Your task to perform on an android device: turn off notifications in google photos Image 0: 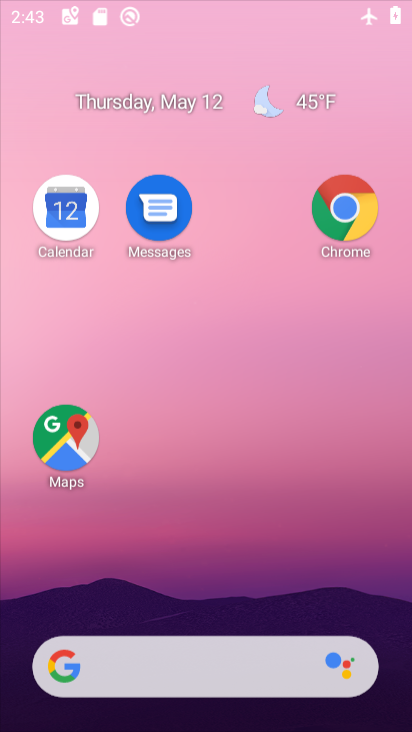
Step 0: click (157, 129)
Your task to perform on an android device: turn off notifications in google photos Image 1: 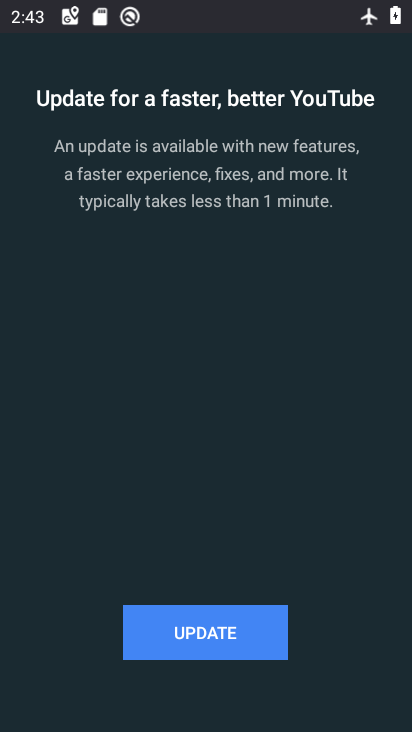
Step 1: press home button
Your task to perform on an android device: turn off notifications in google photos Image 2: 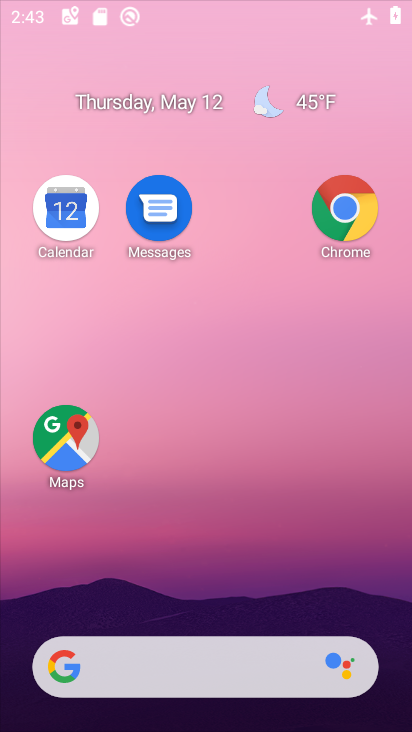
Step 2: drag from (203, 612) to (158, 90)
Your task to perform on an android device: turn off notifications in google photos Image 3: 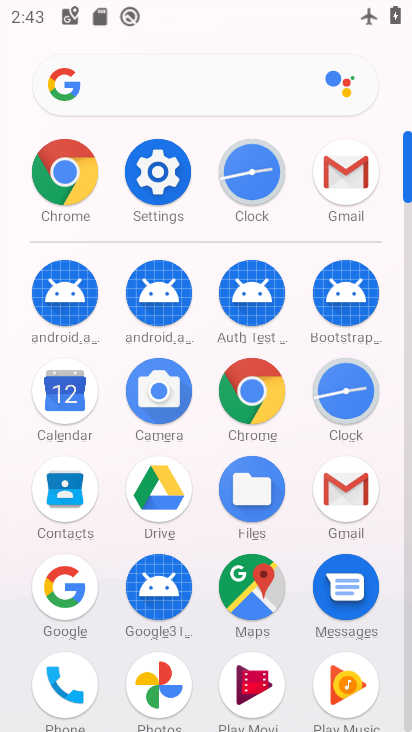
Step 3: click (161, 192)
Your task to perform on an android device: turn off notifications in google photos Image 4: 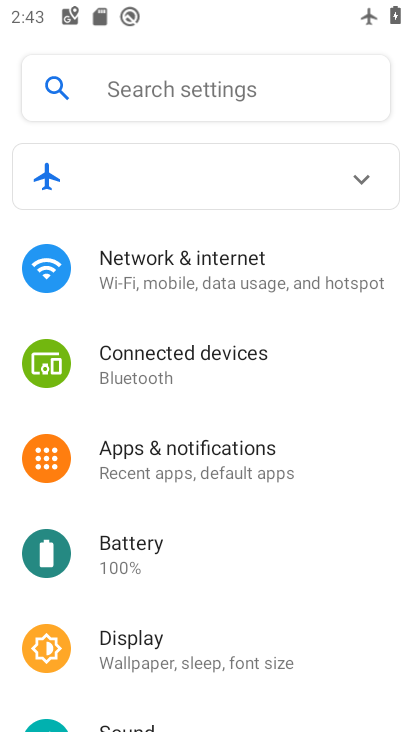
Step 4: drag from (249, 570) to (264, 96)
Your task to perform on an android device: turn off notifications in google photos Image 5: 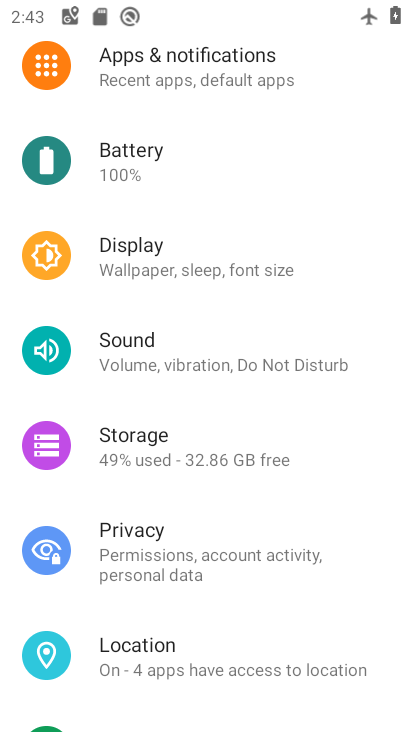
Step 5: drag from (190, 601) to (157, 234)
Your task to perform on an android device: turn off notifications in google photos Image 6: 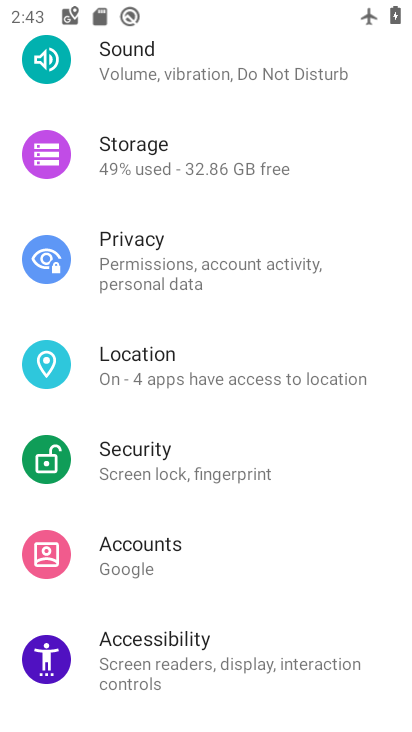
Step 6: press home button
Your task to perform on an android device: turn off notifications in google photos Image 7: 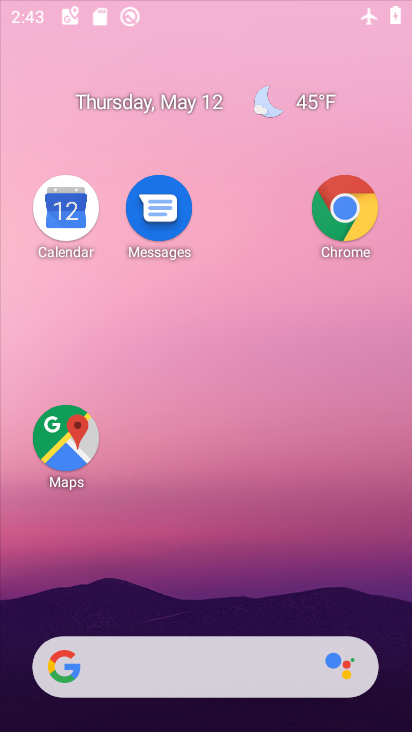
Step 7: drag from (177, 590) to (187, 103)
Your task to perform on an android device: turn off notifications in google photos Image 8: 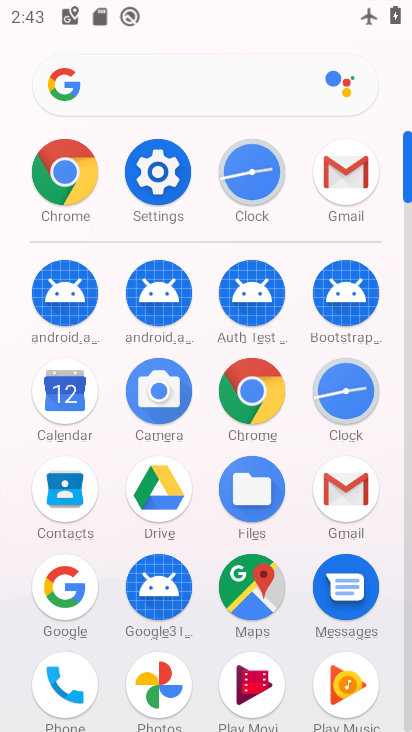
Step 8: click (157, 679)
Your task to perform on an android device: turn off notifications in google photos Image 9: 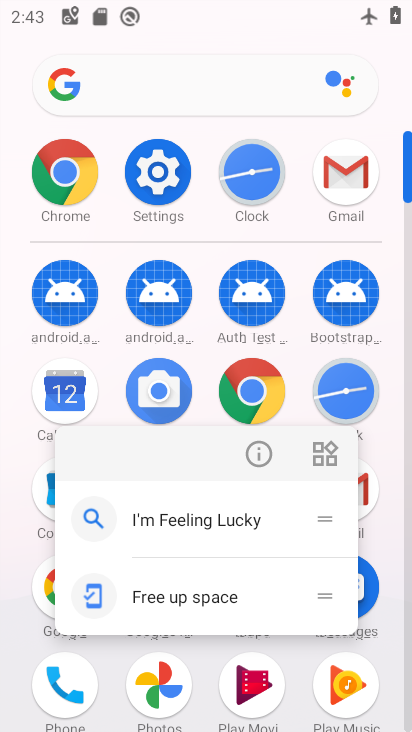
Step 9: click (251, 467)
Your task to perform on an android device: turn off notifications in google photos Image 10: 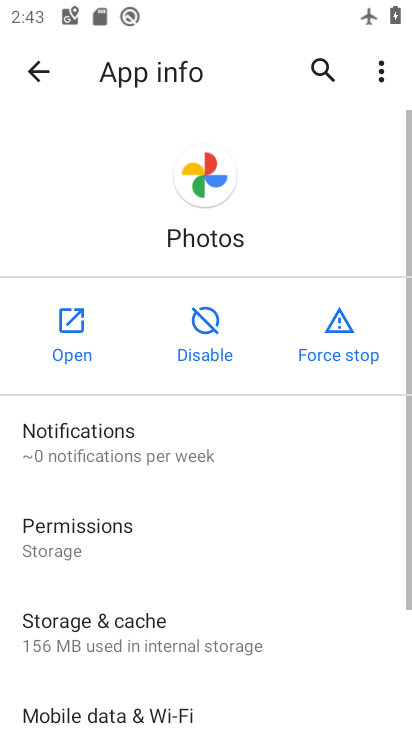
Step 10: click (81, 322)
Your task to perform on an android device: turn off notifications in google photos Image 11: 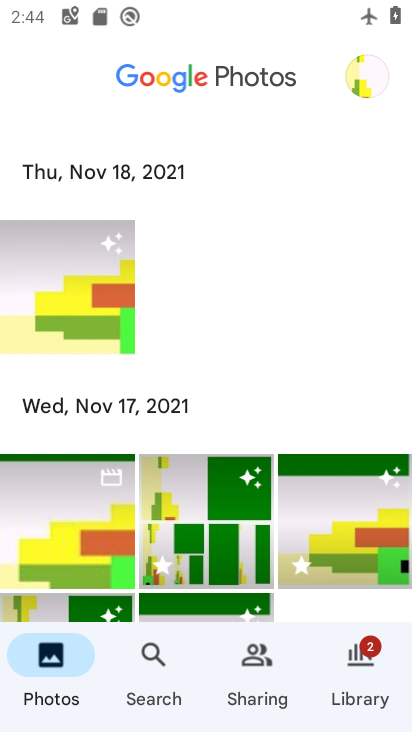
Step 11: click (373, 667)
Your task to perform on an android device: turn off notifications in google photos Image 12: 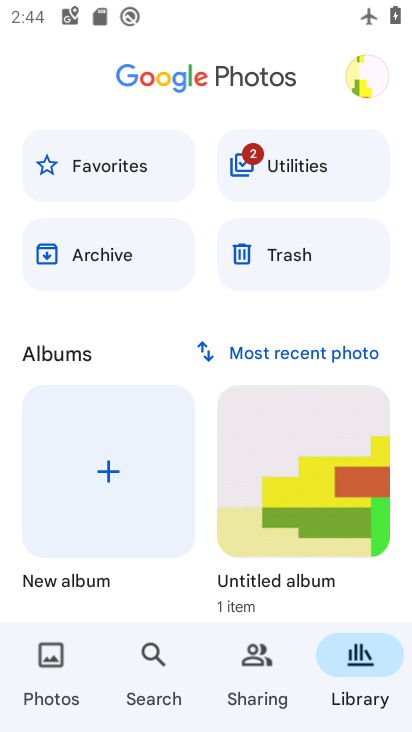
Step 12: click (348, 59)
Your task to perform on an android device: turn off notifications in google photos Image 13: 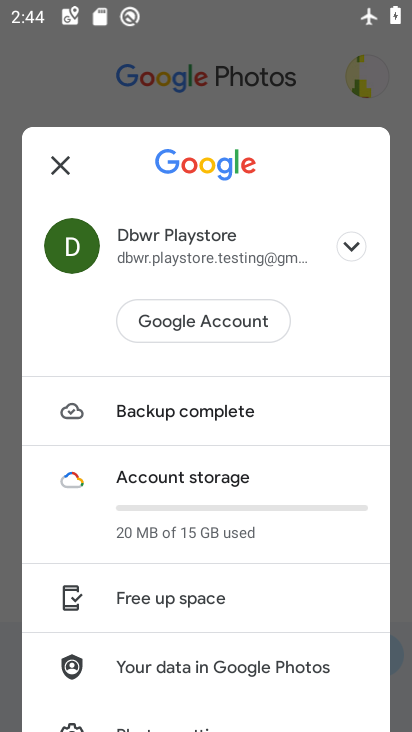
Step 13: drag from (173, 609) to (186, 282)
Your task to perform on an android device: turn off notifications in google photos Image 14: 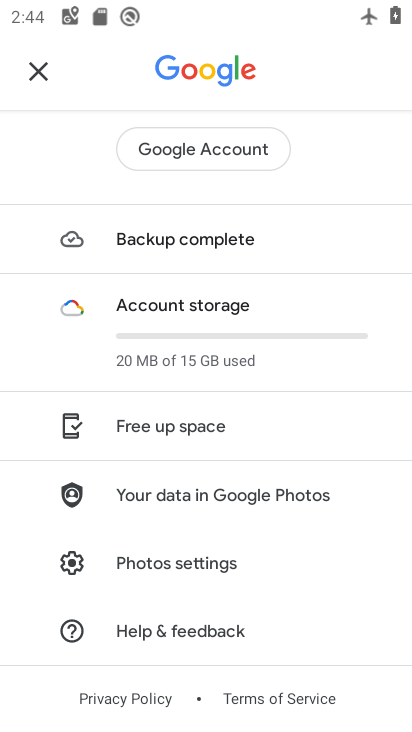
Step 14: click (181, 572)
Your task to perform on an android device: turn off notifications in google photos Image 15: 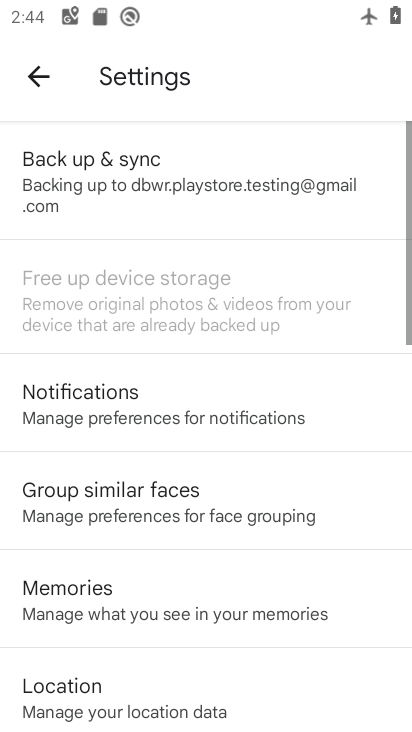
Step 15: drag from (205, 571) to (230, 347)
Your task to perform on an android device: turn off notifications in google photos Image 16: 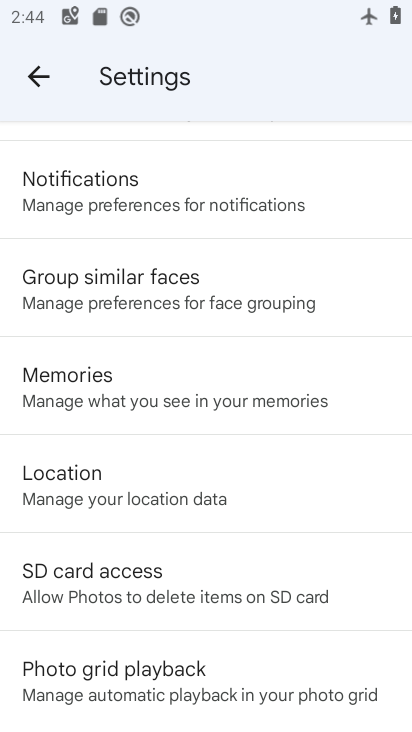
Step 16: click (253, 216)
Your task to perform on an android device: turn off notifications in google photos Image 17: 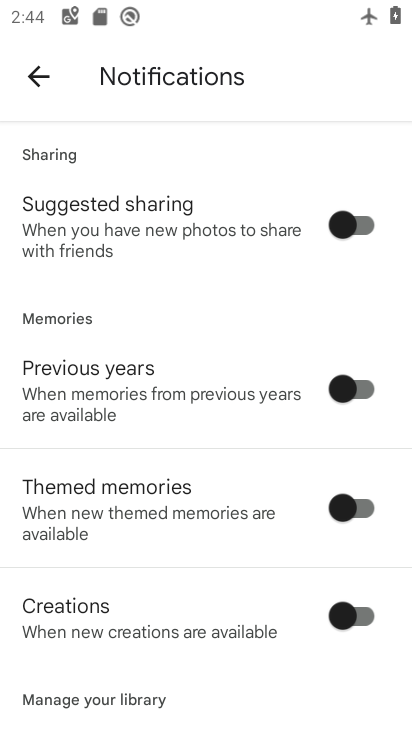
Step 17: drag from (199, 644) to (192, 288)
Your task to perform on an android device: turn off notifications in google photos Image 18: 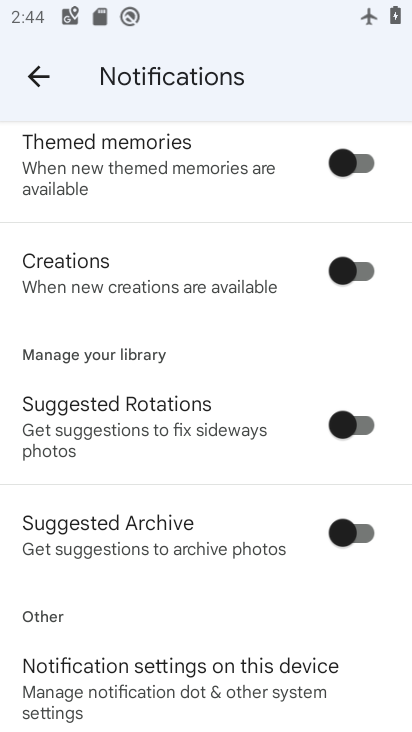
Step 18: click (147, 709)
Your task to perform on an android device: turn off notifications in google photos Image 19: 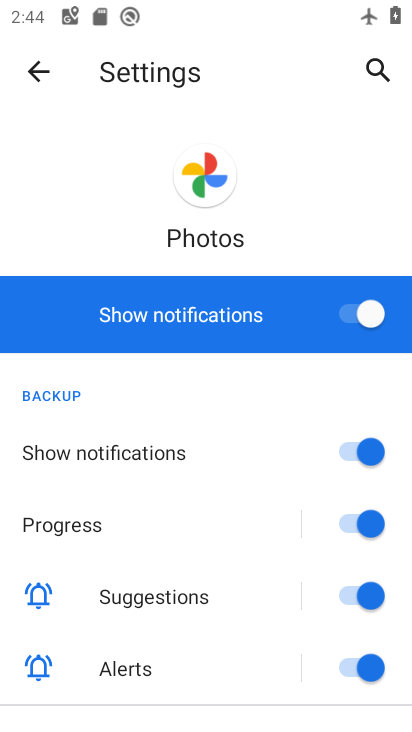
Step 19: click (371, 293)
Your task to perform on an android device: turn off notifications in google photos Image 20: 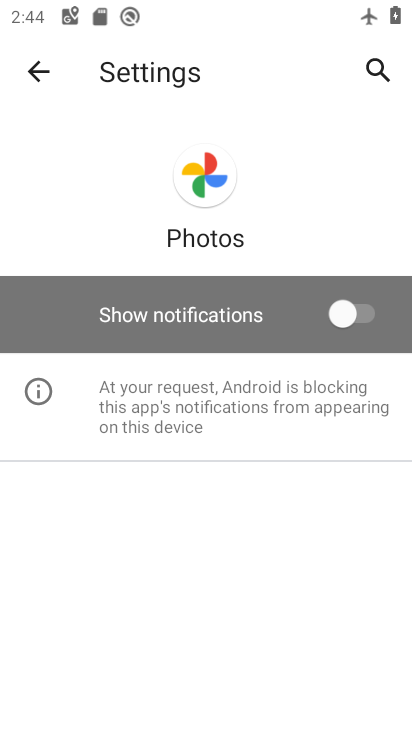
Step 20: task complete